Your task to perform on an android device: Search for vegetarian restaurants on Maps Image 0: 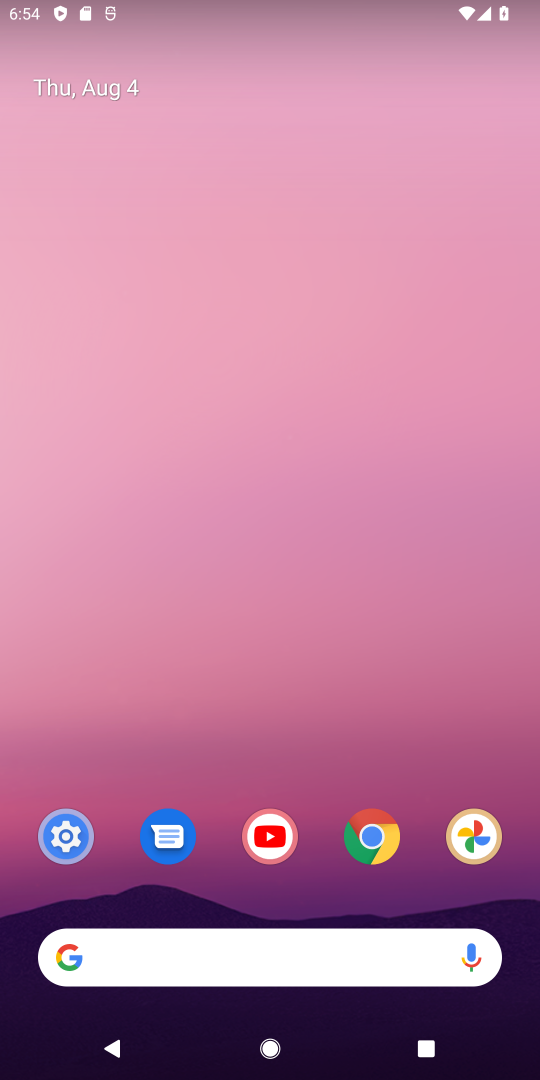
Step 0: drag from (352, 692) to (462, 109)
Your task to perform on an android device: Search for vegetarian restaurants on Maps Image 1: 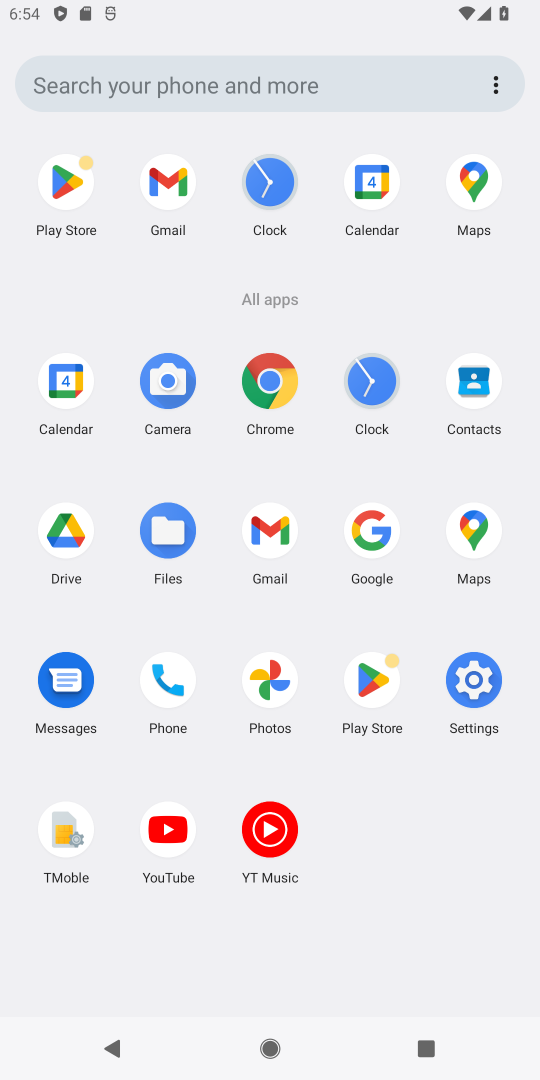
Step 1: click (476, 175)
Your task to perform on an android device: Search for vegetarian restaurants on Maps Image 2: 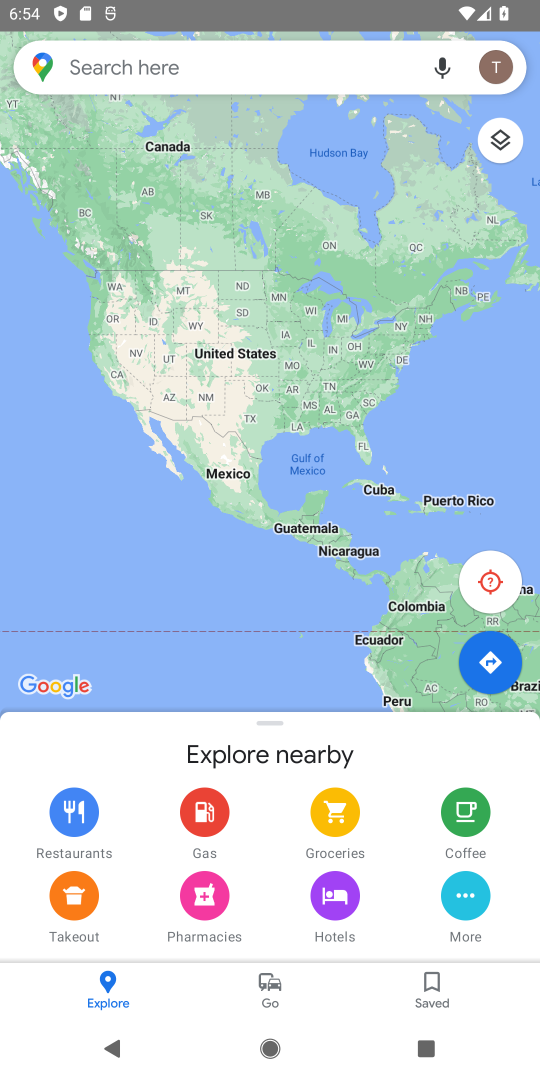
Step 2: click (190, 61)
Your task to perform on an android device: Search for vegetarian restaurants on Maps Image 3: 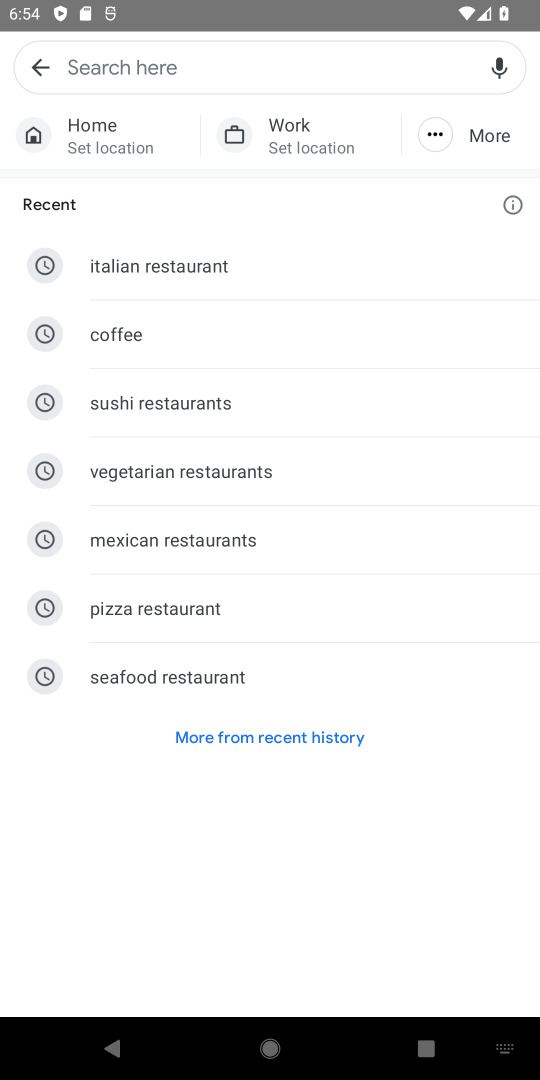
Step 3: click (153, 476)
Your task to perform on an android device: Search for vegetarian restaurants on Maps Image 4: 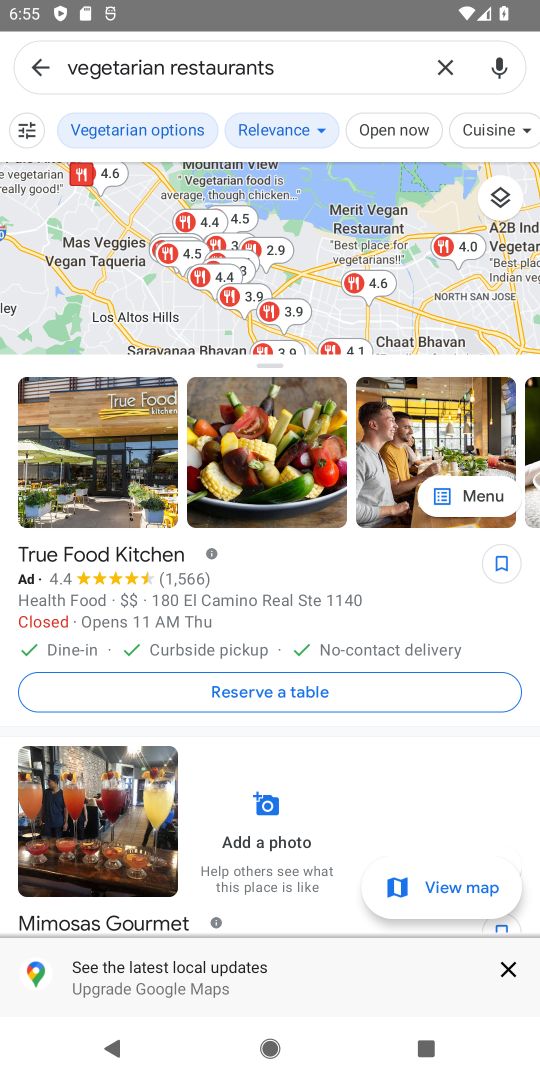
Step 4: task complete